Your task to perform on an android device: change text size in settings app Image 0: 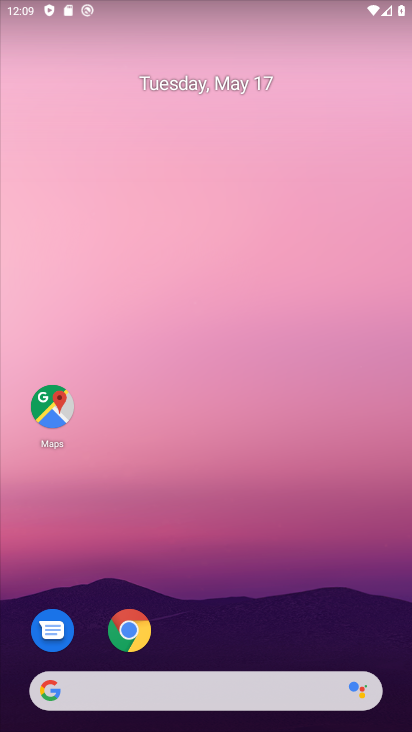
Step 0: drag from (179, 656) to (258, 138)
Your task to perform on an android device: change text size in settings app Image 1: 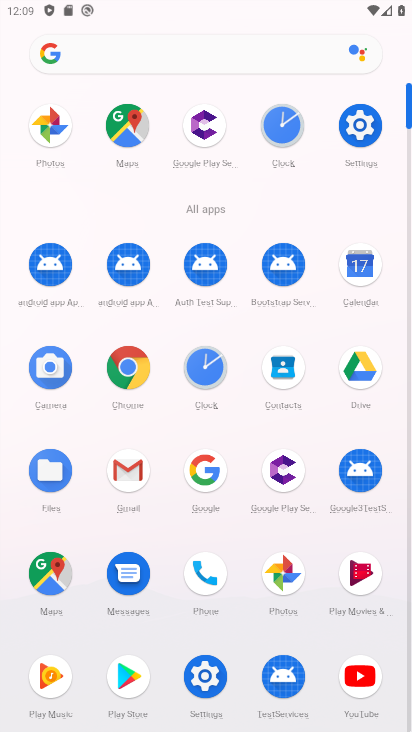
Step 1: click (205, 690)
Your task to perform on an android device: change text size in settings app Image 2: 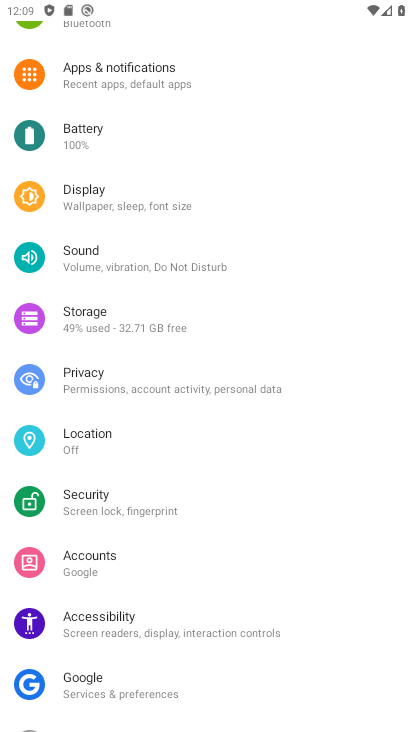
Step 2: click (147, 191)
Your task to perform on an android device: change text size in settings app Image 3: 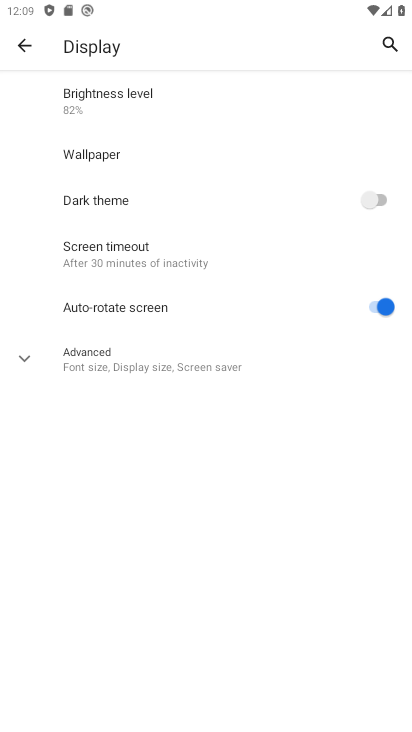
Step 3: click (173, 368)
Your task to perform on an android device: change text size in settings app Image 4: 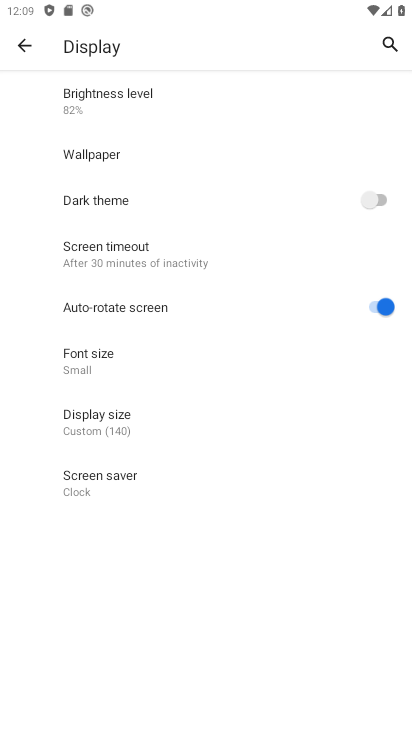
Step 4: click (168, 376)
Your task to perform on an android device: change text size in settings app Image 5: 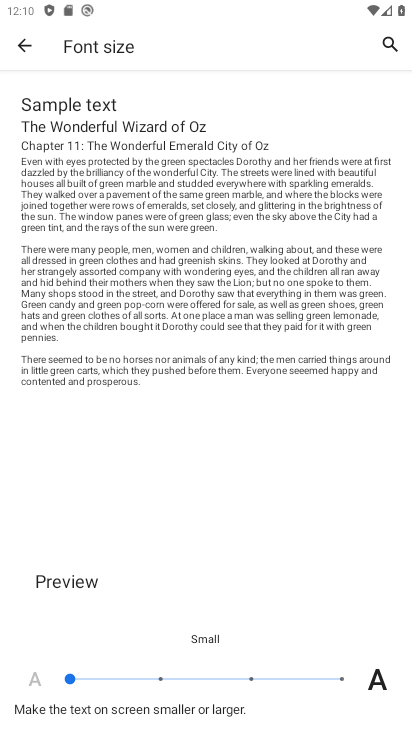
Step 5: click (164, 679)
Your task to perform on an android device: change text size in settings app Image 6: 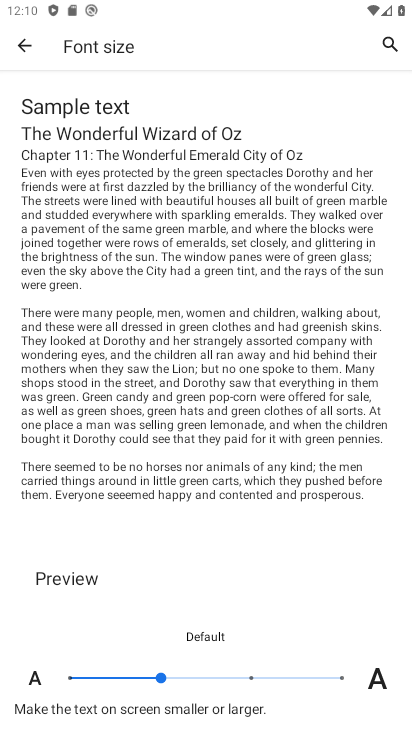
Step 6: task complete